Your task to perform on an android device: stop showing notifications on the lock screen Image 0: 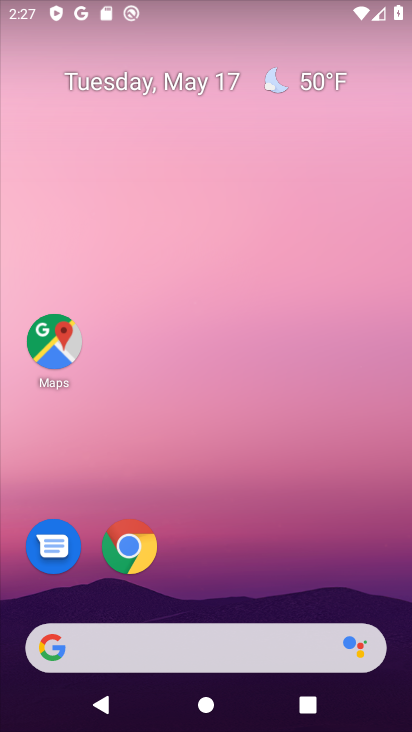
Step 0: drag from (209, 572) to (296, 101)
Your task to perform on an android device: stop showing notifications on the lock screen Image 1: 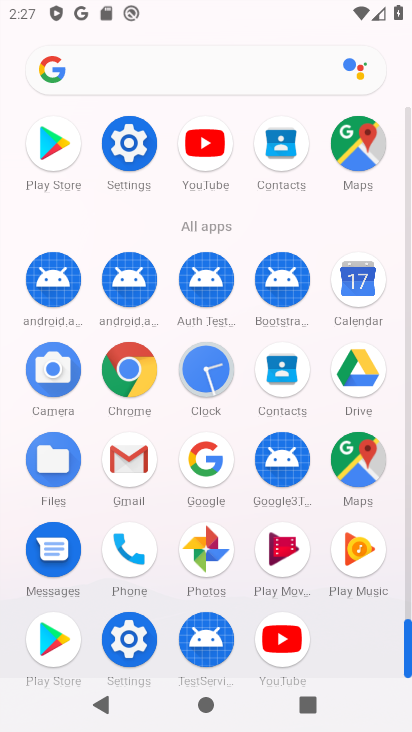
Step 1: click (139, 169)
Your task to perform on an android device: stop showing notifications on the lock screen Image 2: 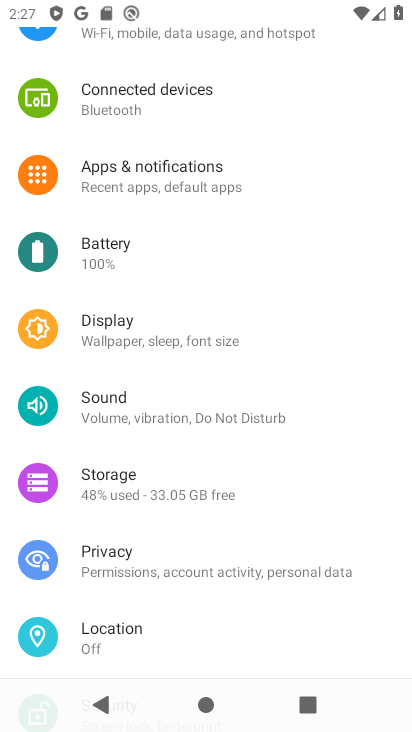
Step 2: click (196, 191)
Your task to perform on an android device: stop showing notifications on the lock screen Image 3: 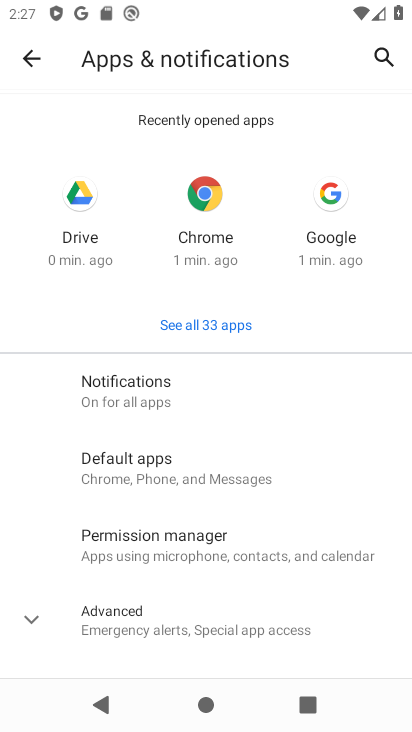
Step 3: click (173, 400)
Your task to perform on an android device: stop showing notifications on the lock screen Image 4: 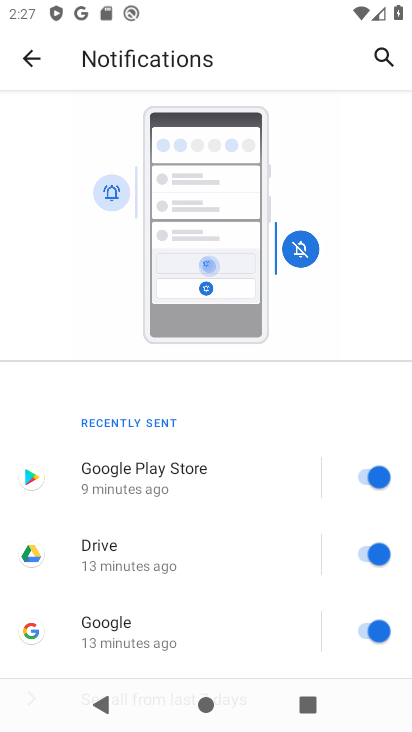
Step 4: drag from (123, 531) to (183, 236)
Your task to perform on an android device: stop showing notifications on the lock screen Image 5: 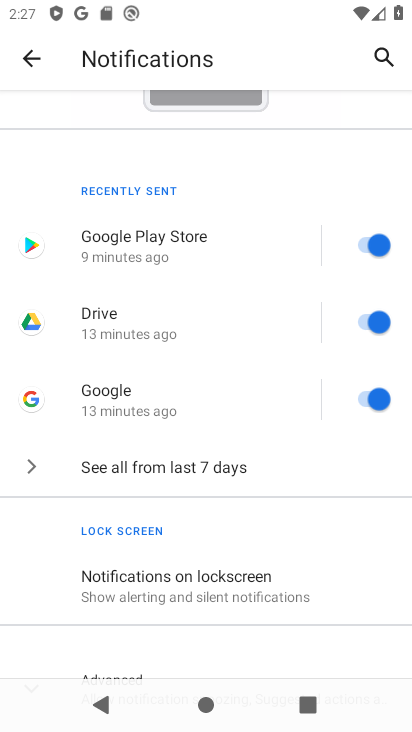
Step 5: drag from (152, 499) to (192, 290)
Your task to perform on an android device: stop showing notifications on the lock screen Image 6: 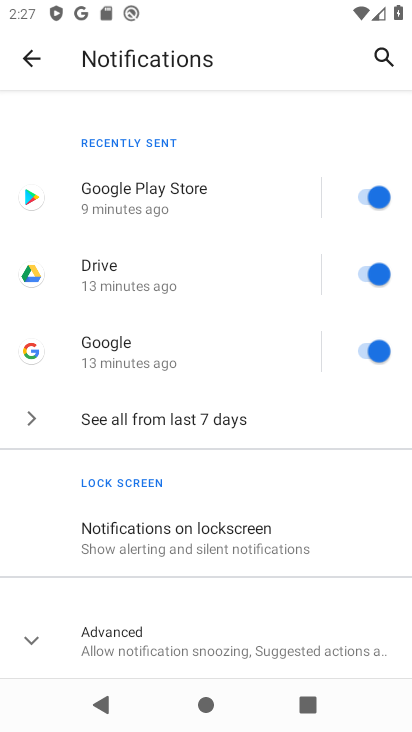
Step 6: click (177, 569)
Your task to perform on an android device: stop showing notifications on the lock screen Image 7: 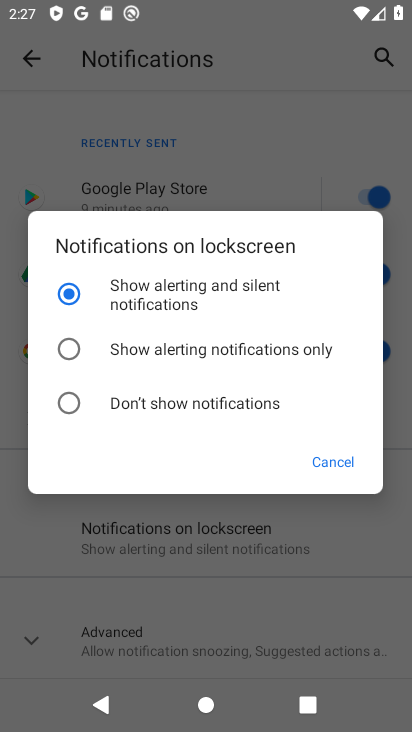
Step 7: click (149, 403)
Your task to perform on an android device: stop showing notifications on the lock screen Image 8: 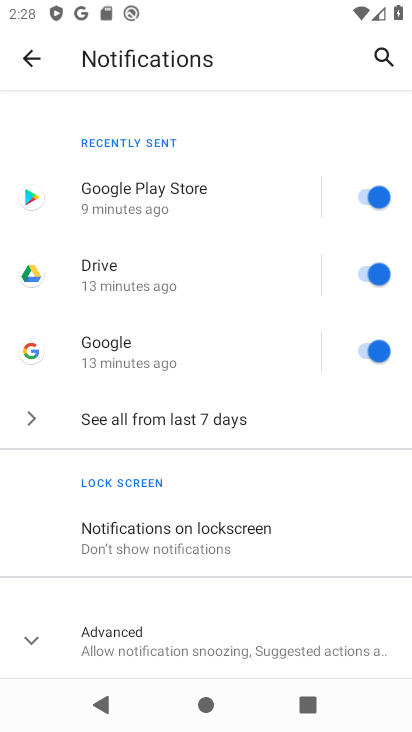
Step 8: task complete